Your task to perform on an android device: Open battery settings Image 0: 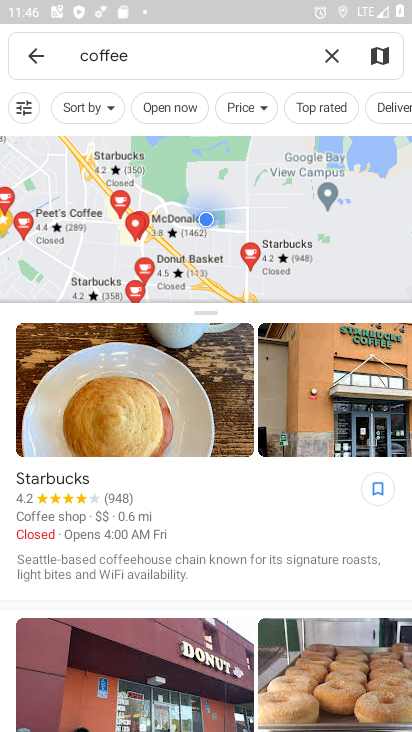
Step 0: press home button
Your task to perform on an android device: Open battery settings Image 1: 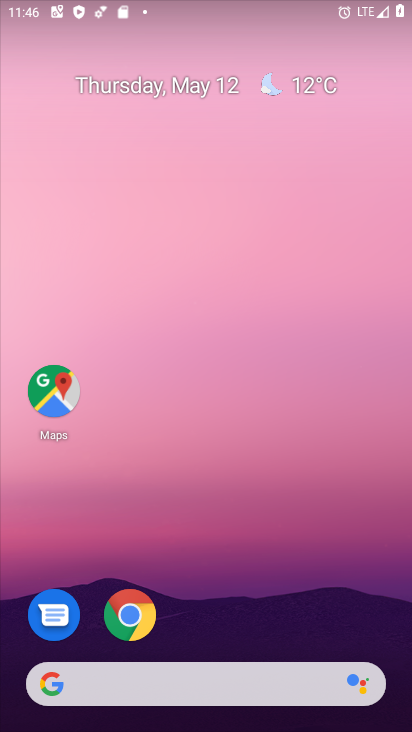
Step 1: drag from (286, 532) to (269, 35)
Your task to perform on an android device: Open battery settings Image 2: 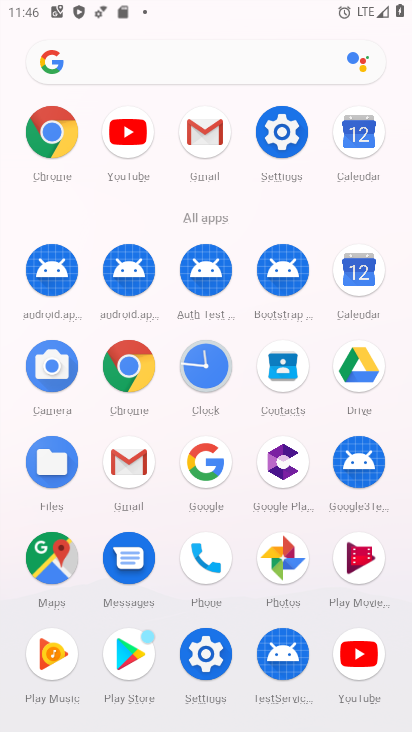
Step 2: click (273, 129)
Your task to perform on an android device: Open battery settings Image 3: 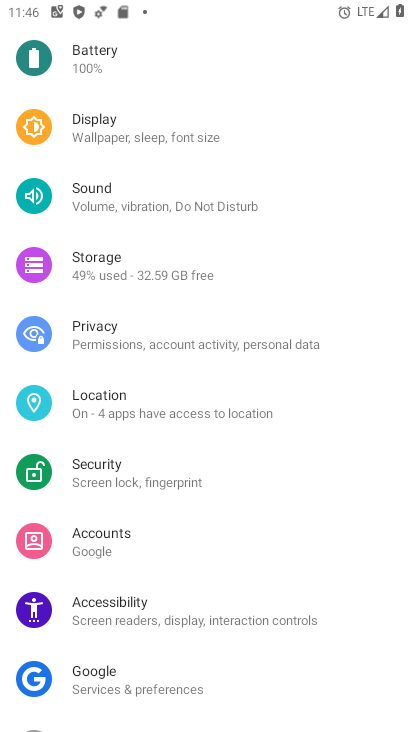
Step 3: click (148, 68)
Your task to perform on an android device: Open battery settings Image 4: 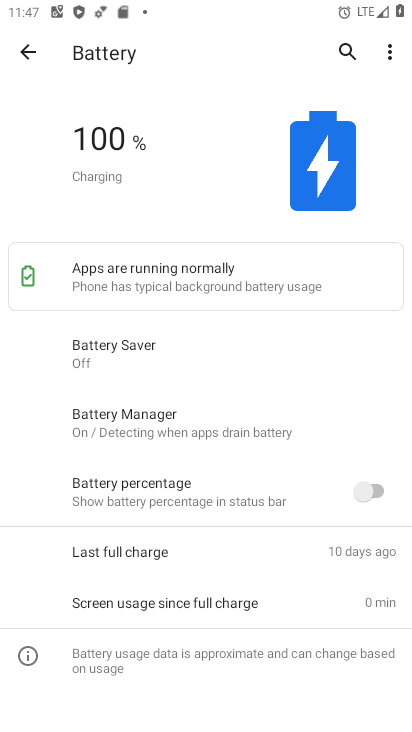
Step 4: task complete